Your task to perform on an android device: Is it going to rain tomorrow? Image 0: 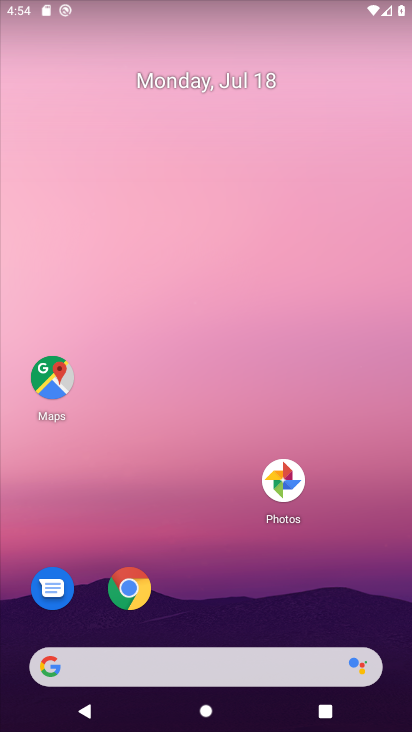
Step 0: drag from (299, 705) to (181, 291)
Your task to perform on an android device: Is it going to rain tomorrow? Image 1: 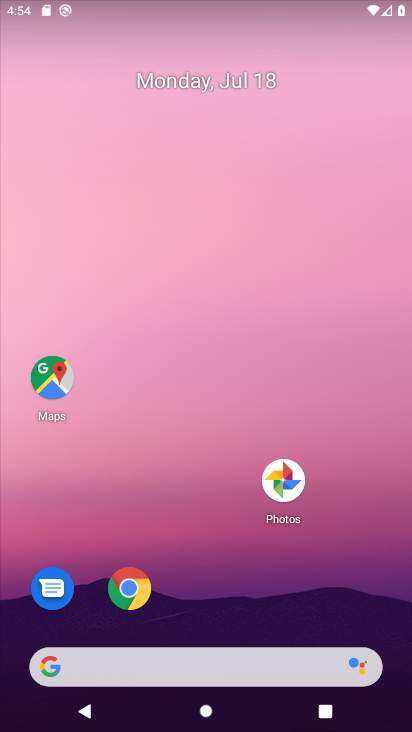
Step 1: drag from (202, 441) to (165, 179)
Your task to perform on an android device: Is it going to rain tomorrow? Image 2: 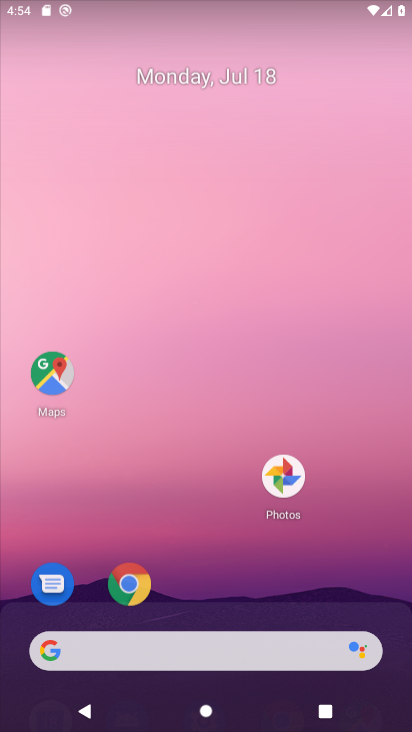
Step 2: drag from (195, 498) to (160, 247)
Your task to perform on an android device: Is it going to rain tomorrow? Image 3: 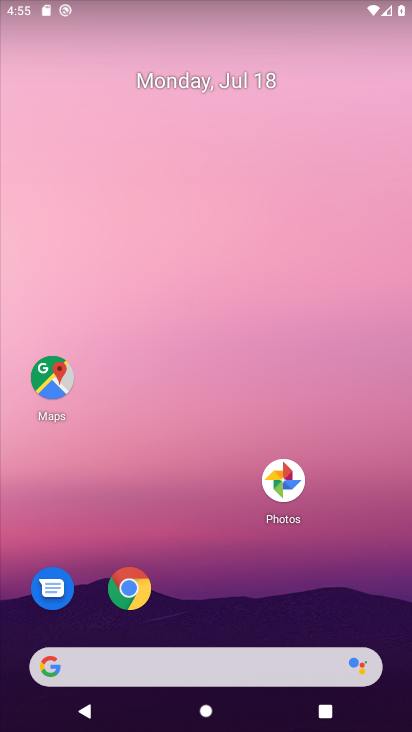
Step 3: drag from (252, 542) to (148, 71)
Your task to perform on an android device: Is it going to rain tomorrow? Image 4: 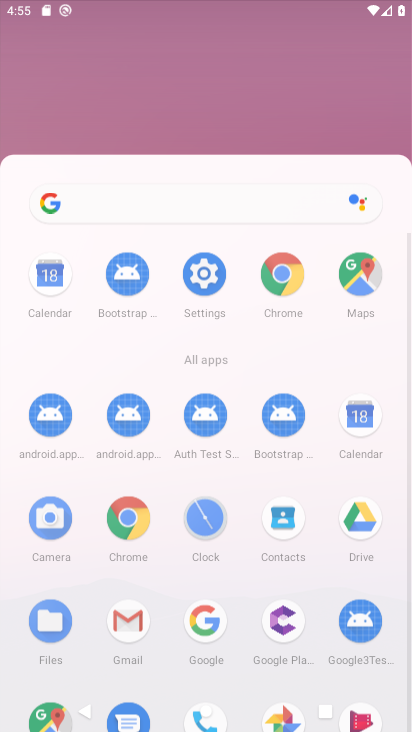
Step 4: drag from (245, 619) to (189, 97)
Your task to perform on an android device: Is it going to rain tomorrow? Image 5: 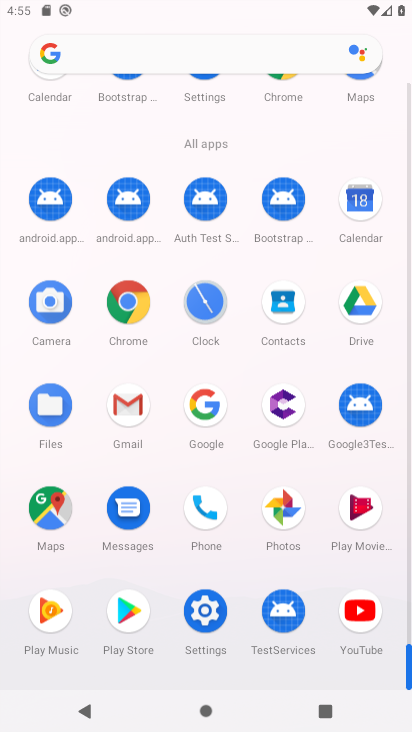
Step 5: click (193, 130)
Your task to perform on an android device: Is it going to rain tomorrow? Image 6: 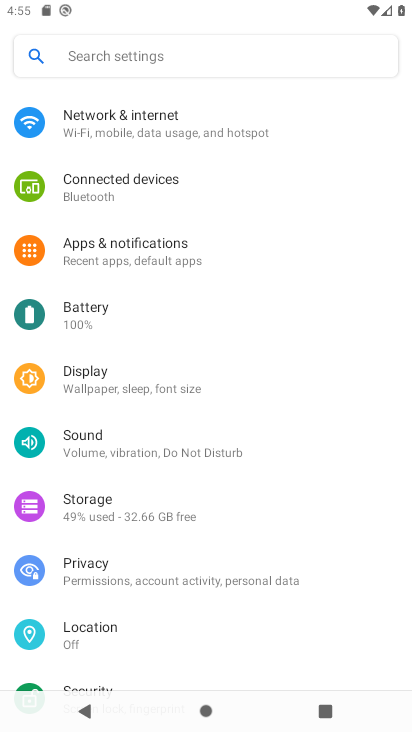
Step 6: click (142, 329)
Your task to perform on an android device: Is it going to rain tomorrow? Image 7: 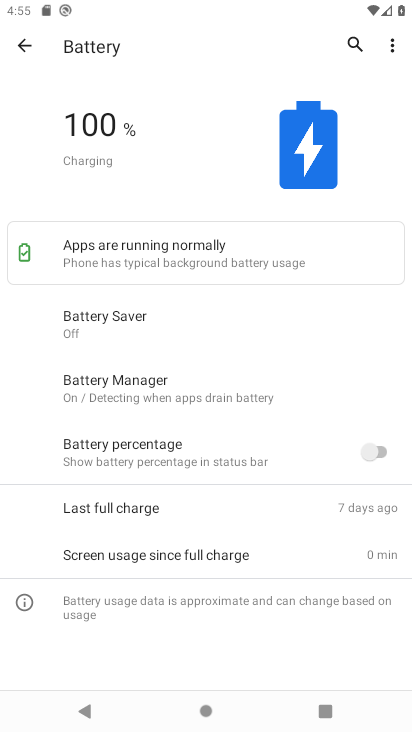
Step 7: click (10, 45)
Your task to perform on an android device: Is it going to rain tomorrow? Image 8: 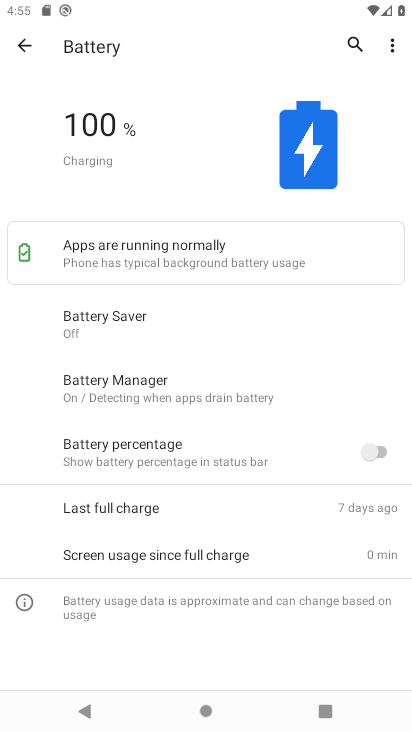
Step 8: click (18, 44)
Your task to perform on an android device: Is it going to rain tomorrow? Image 9: 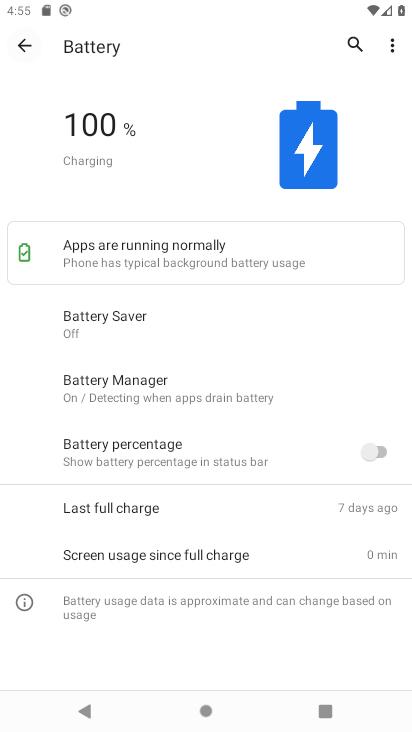
Step 9: click (19, 45)
Your task to perform on an android device: Is it going to rain tomorrow? Image 10: 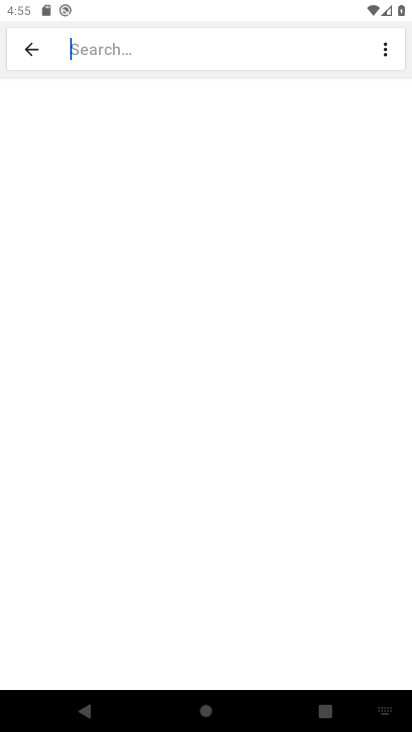
Step 10: click (30, 50)
Your task to perform on an android device: Is it going to rain tomorrow? Image 11: 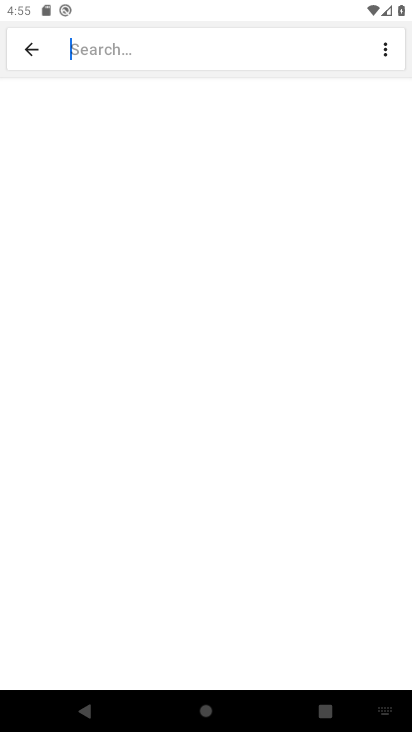
Step 11: click (41, 30)
Your task to perform on an android device: Is it going to rain tomorrow? Image 12: 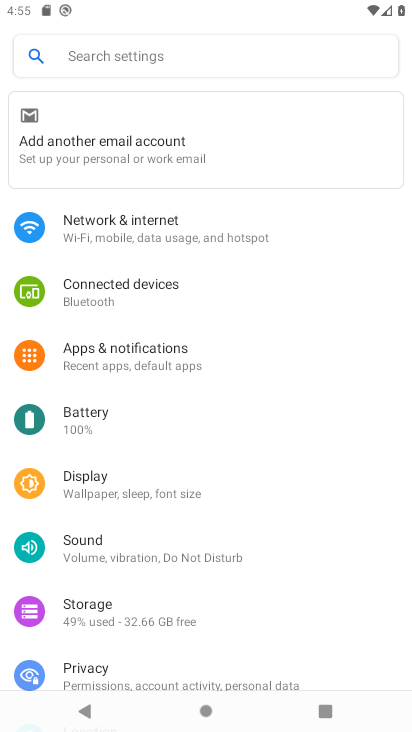
Step 12: press home button
Your task to perform on an android device: Is it going to rain tomorrow? Image 13: 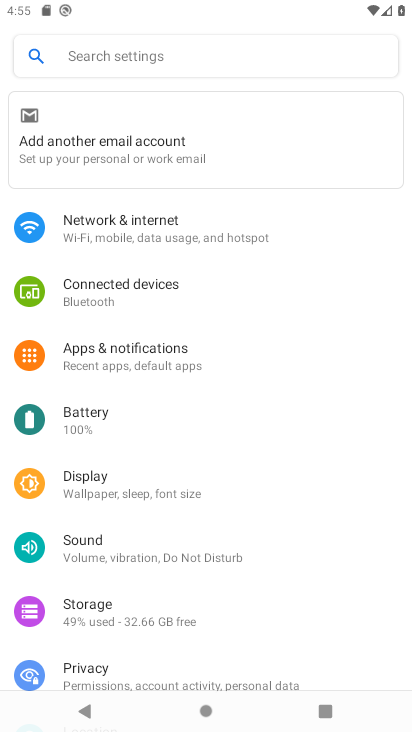
Step 13: press home button
Your task to perform on an android device: Is it going to rain tomorrow? Image 14: 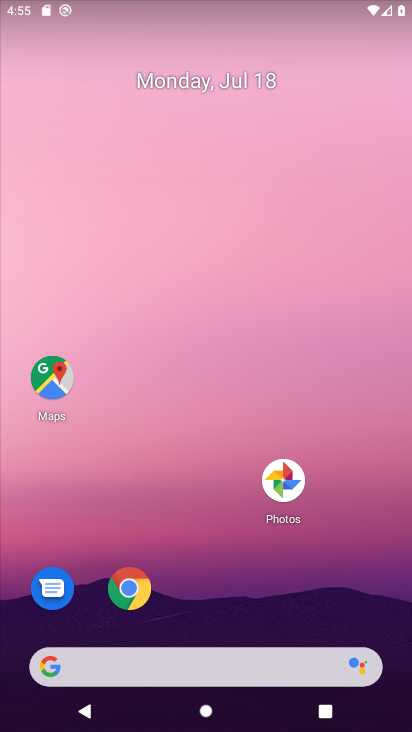
Step 14: drag from (230, 397) to (159, 119)
Your task to perform on an android device: Is it going to rain tomorrow? Image 15: 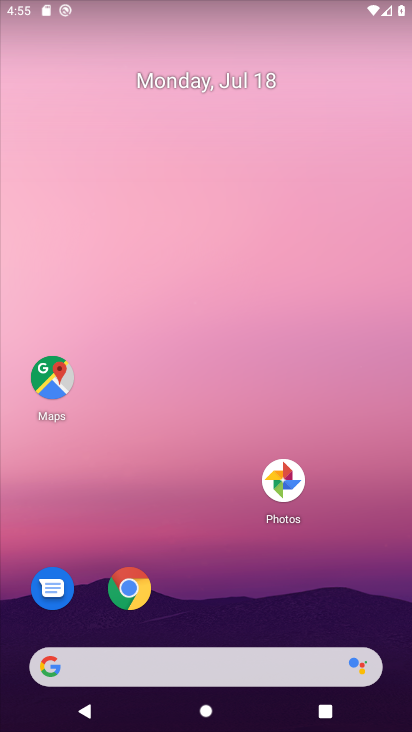
Step 15: drag from (326, 644) to (170, 108)
Your task to perform on an android device: Is it going to rain tomorrow? Image 16: 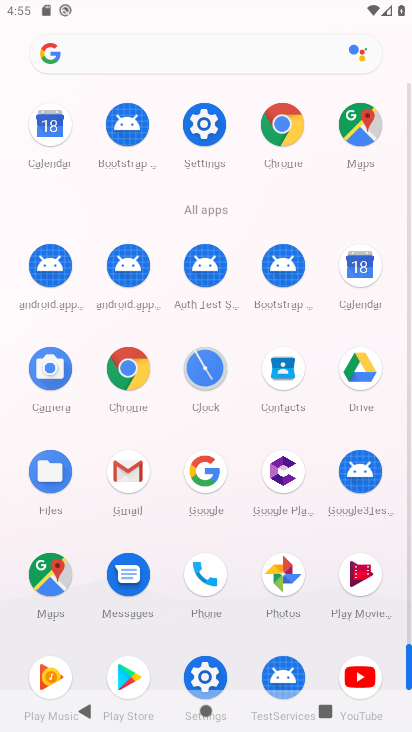
Step 16: click (283, 126)
Your task to perform on an android device: Is it going to rain tomorrow? Image 17: 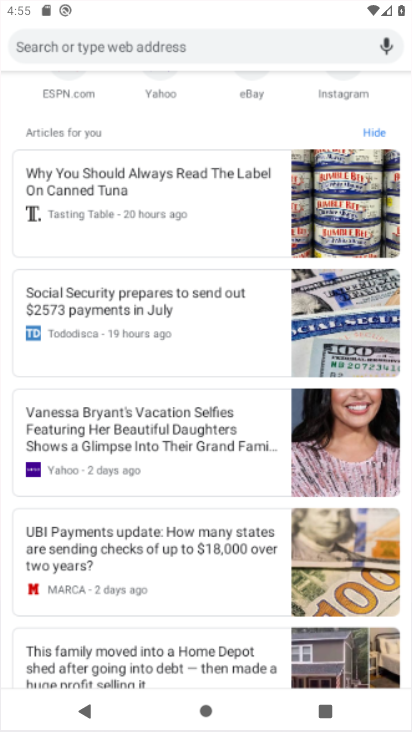
Step 17: click (286, 122)
Your task to perform on an android device: Is it going to rain tomorrow? Image 18: 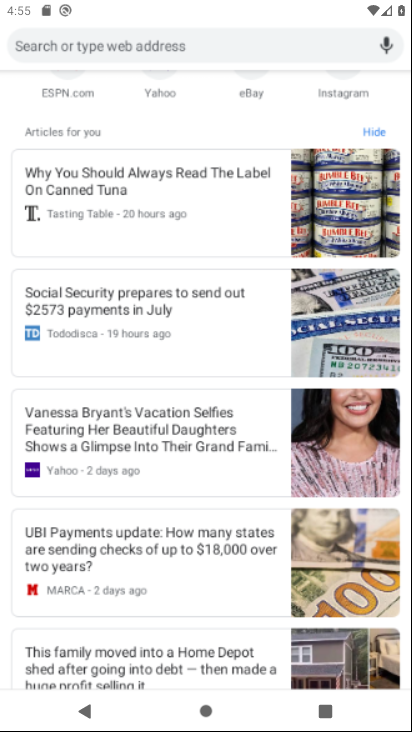
Step 18: click (286, 122)
Your task to perform on an android device: Is it going to rain tomorrow? Image 19: 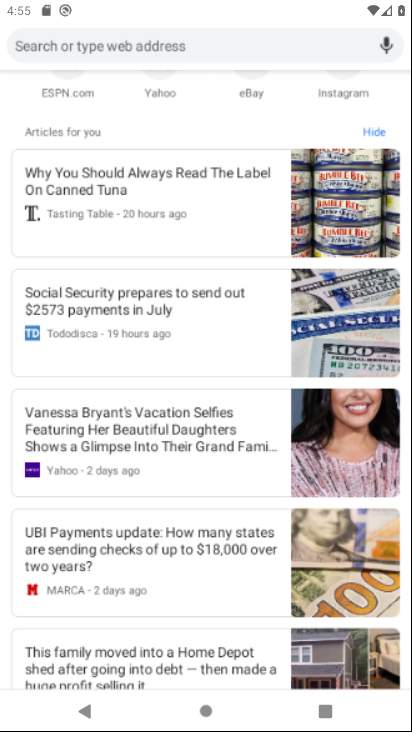
Step 19: drag from (145, 154) to (156, 383)
Your task to perform on an android device: Is it going to rain tomorrow? Image 20: 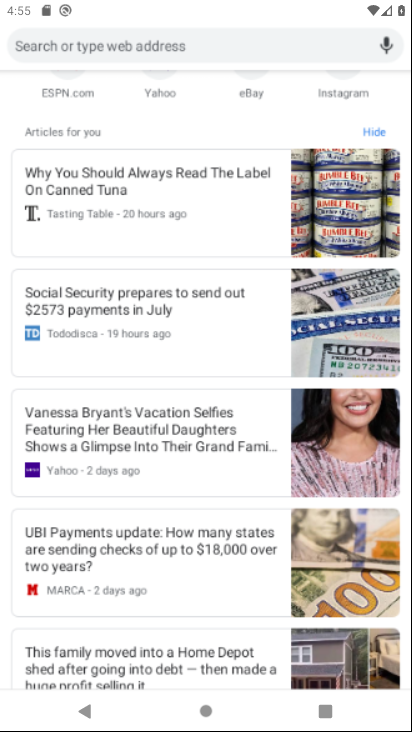
Step 20: drag from (162, 318) to (164, 370)
Your task to perform on an android device: Is it going to rain tomorrow? Image 21: 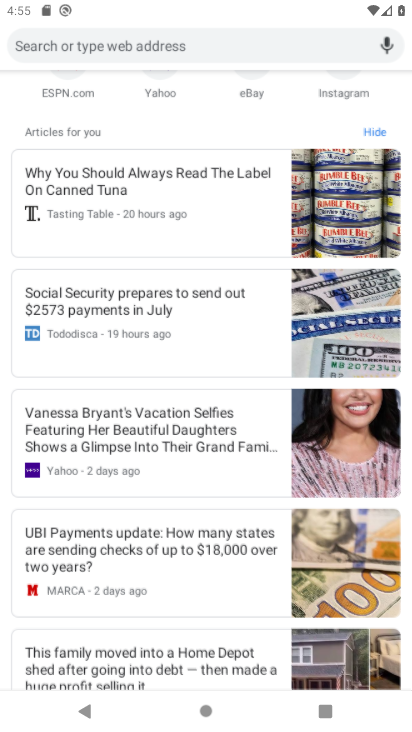
Step 21: drag from (168, 256) to (183, 451)
Your task to perform on an android device: Is it going to rain tomorrow? Image 22: 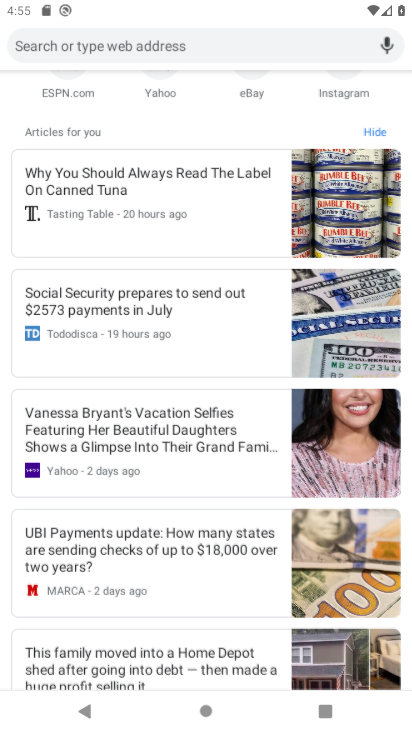
Step 22: drag from (119, 271) to (119, 394)
Your task to perform on an android device: Is it going to rain tomorrow? Image 23: 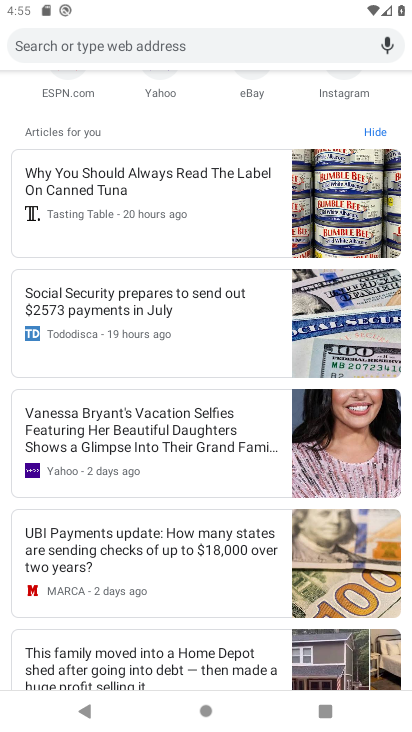
Step 23: click (183, 47)
Your task to perform on an android device: Is it going to rain tomorrow? Image 24: 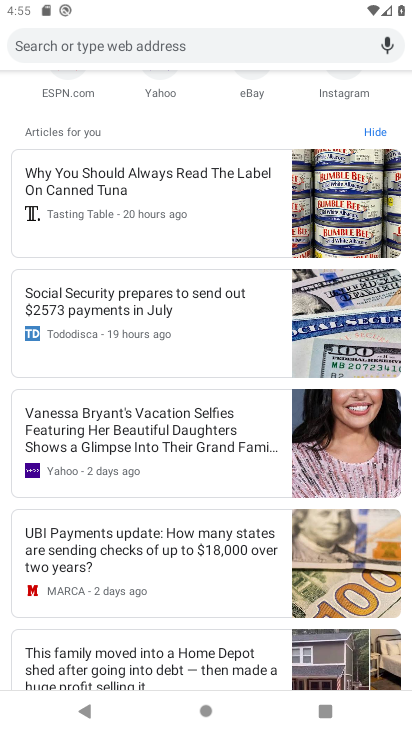
Step 24: click (185, 48)
Your task to perform on an android device: Is it going to rain tomorrow? Image 25: 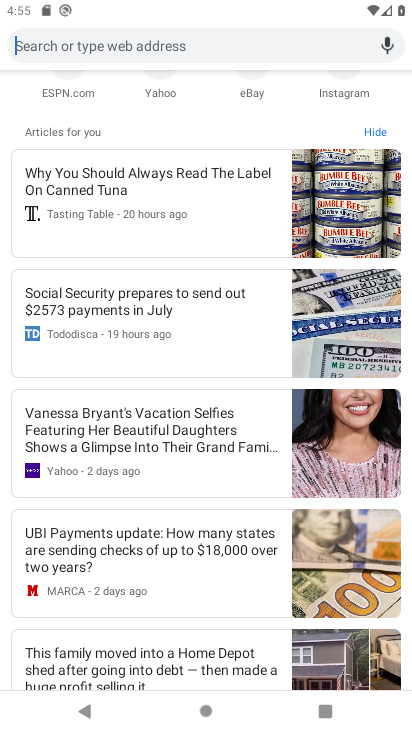
Step 25: click (193, 43)
Your task to perform on an android device: Is it going to rain tomorrow? Image 26: 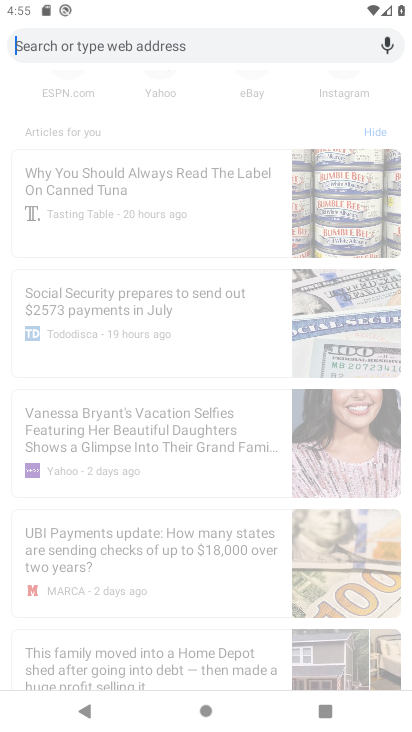
Step 26: click (196, 40)
Your task to perform on an android device: Is it going to rain tomorrow? Image 27: 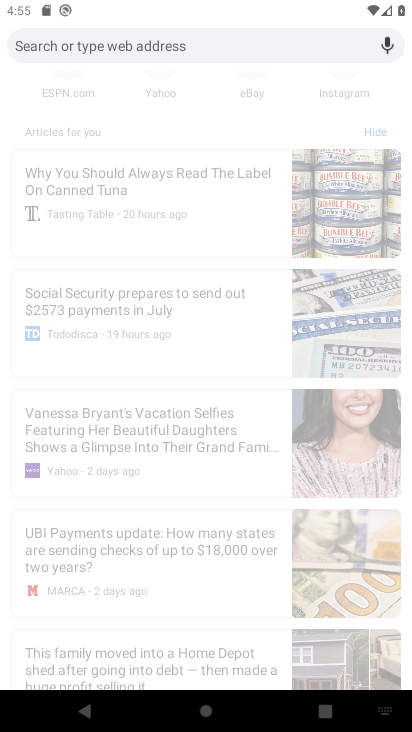
Step 27: type "isd itb going bton rain tommkorrow"
Your task to perform on an android device: Is it going to rain tomorrow? Image 28: 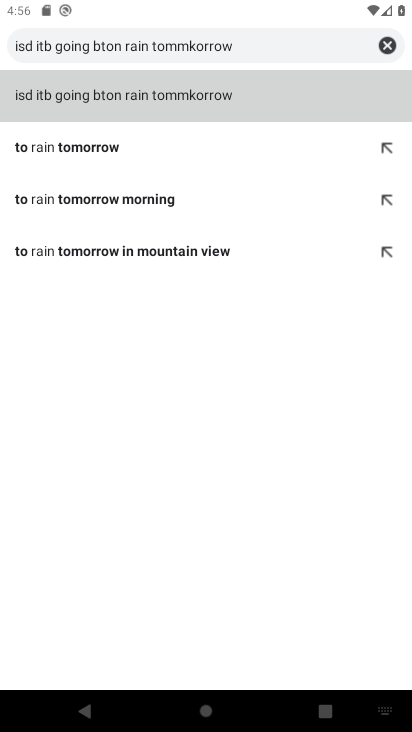
Step 28: click (233, 92)
Your task to perform on an android device: Is it going to rain tomorrow? Image 29: 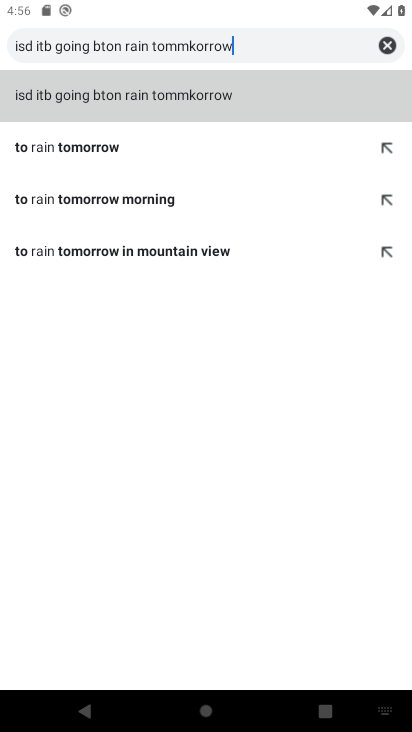
Step 29: click (233, 92)
Your task to perform on an android device: Is it going to rain tomorrow? Image 30: 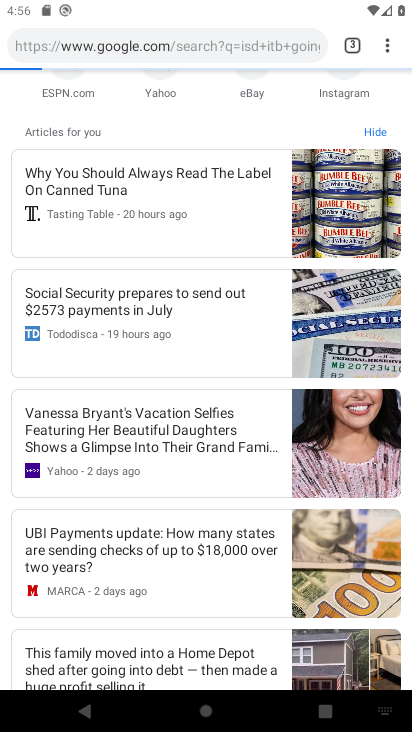
Step 30: click (106, 159)
Your task to perform on an android device: Is it going to rain tomorrow? Image 31: 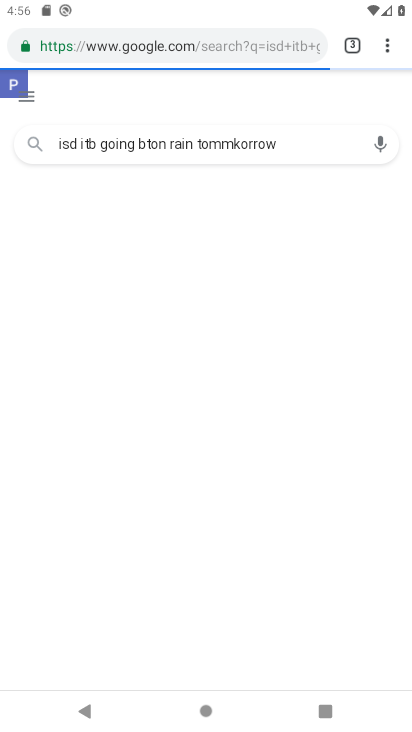
Step 31: task complete